Your task to perform on an android device: Go to Maps Image 0: 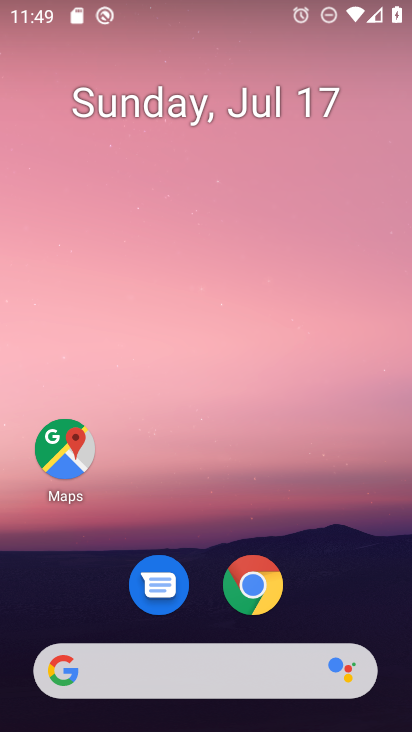
Step 0: click (62, 452)
Your task to perform on an android device: Go to Maps Image 1: 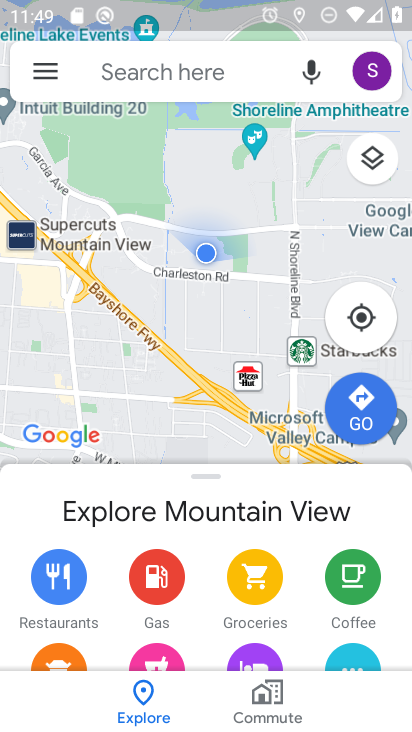
Step 1: task complete